Your task to perform on an android device: Open my contact list Image 0: 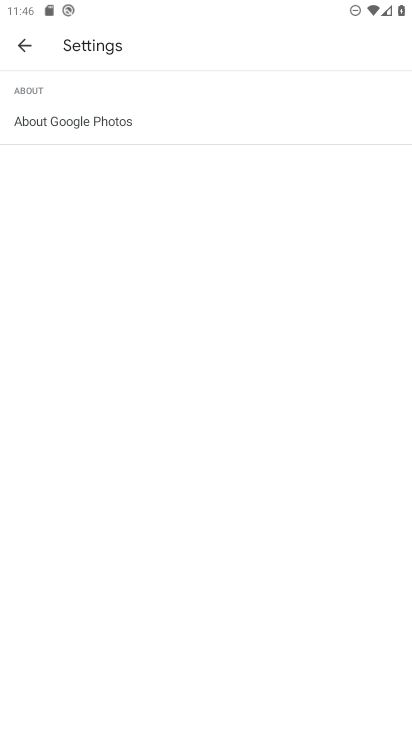
Step 0: press home button
Your task to perform on an android device: Open my contact list Image 1: 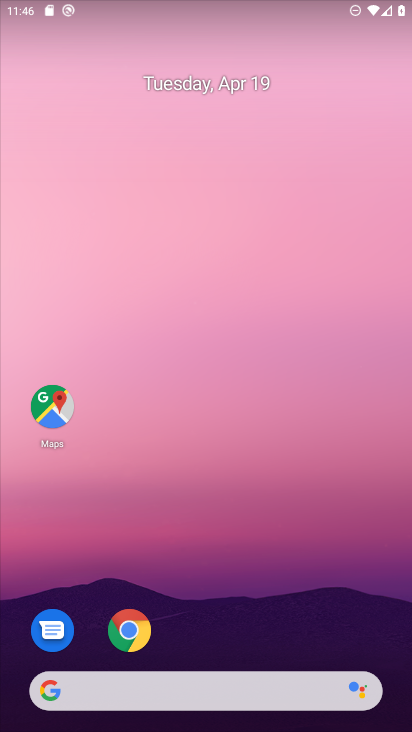
Step 1: drag from (189, 629) to (121, 90)
Your task to perform on an android device: Open my contact list Image 2: 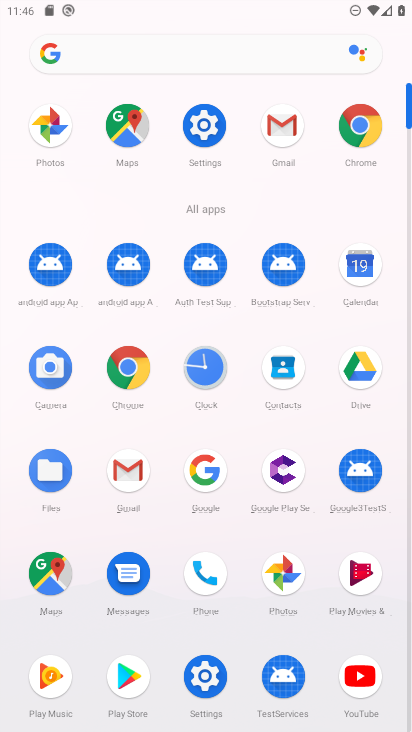
Step 2: click (283, 368)
Your task to perform on an android device: Open my contact list Image 3: 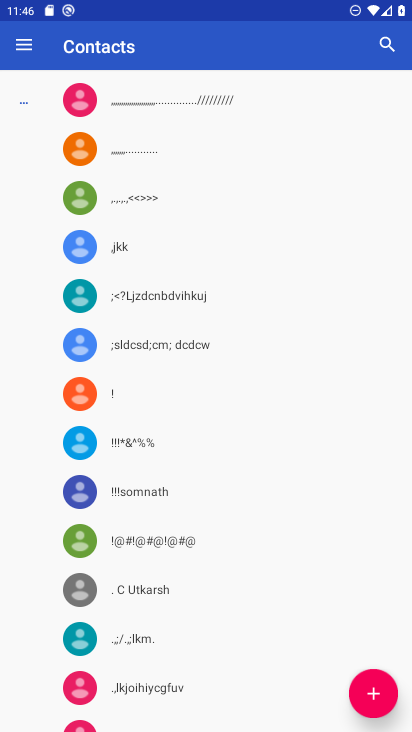
Step 3: task complete